Your task to perform on an android device: Is it going to rain today? Image 0: 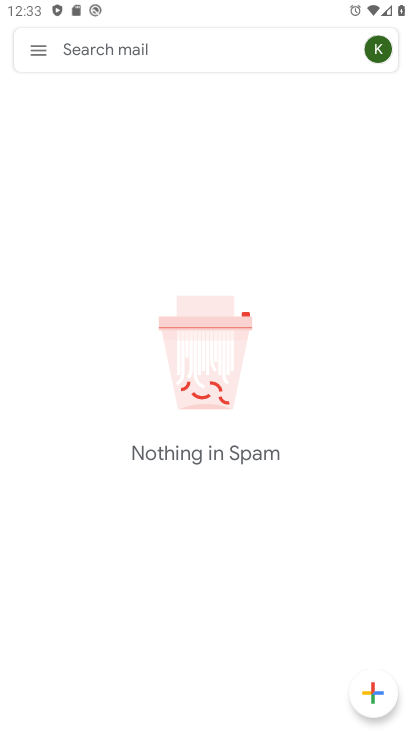
Step 0: press home button
Your task to perform on an android device: Is it going to rain today? Image 1: 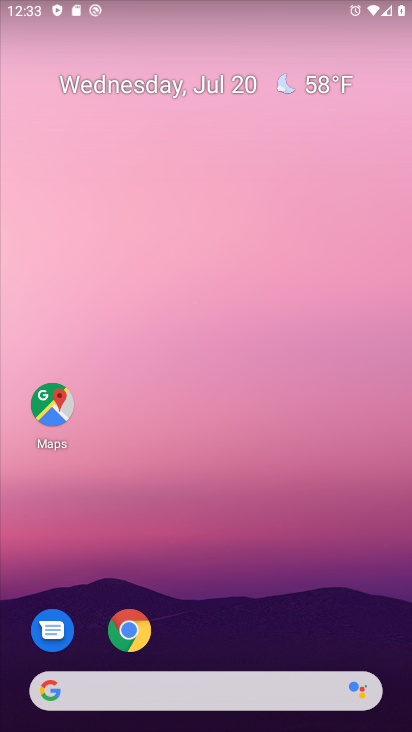
Step 1: click (153, 679)
Your task to perform on an android device: Is it going to rain today? Image 2: 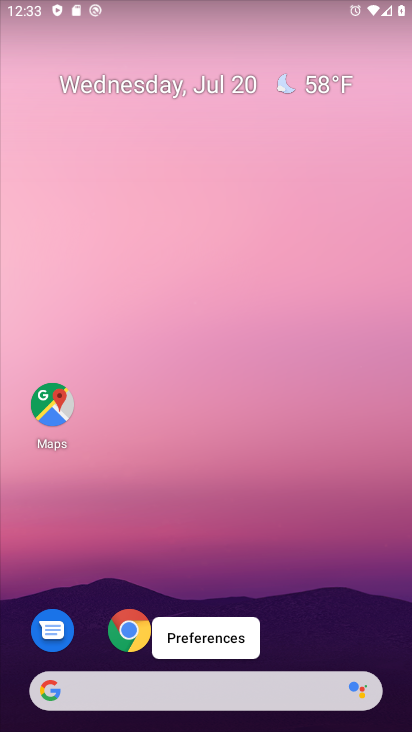
Step 2: click (141, 697)
Your task to perform on an android device: Is it going to rain today? Image 3: 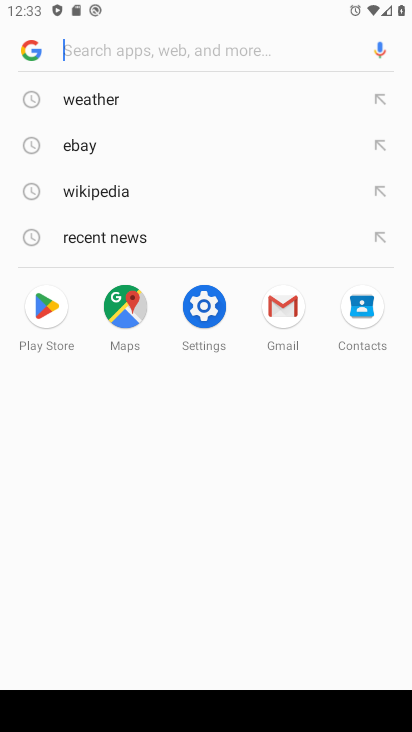
Step 3: click (79, 95)
Your task to perform on an android device: Is it going to rain today? Image 4: 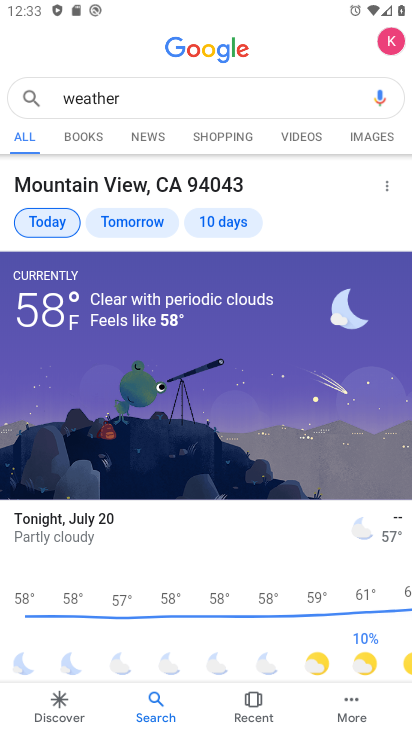
Step 4: task complete